Your task to perform on an android device: set the stopwatch Image 0: 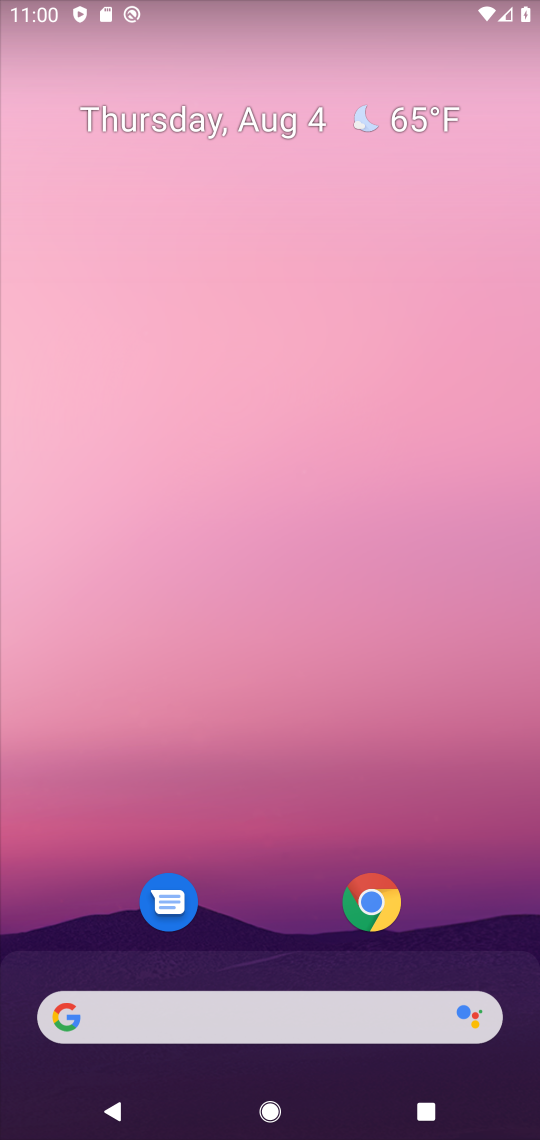
Step 0: drag from (331, 1023) to (402, 375)
Your task to perform on an android device: set the stopwatch Image 1: 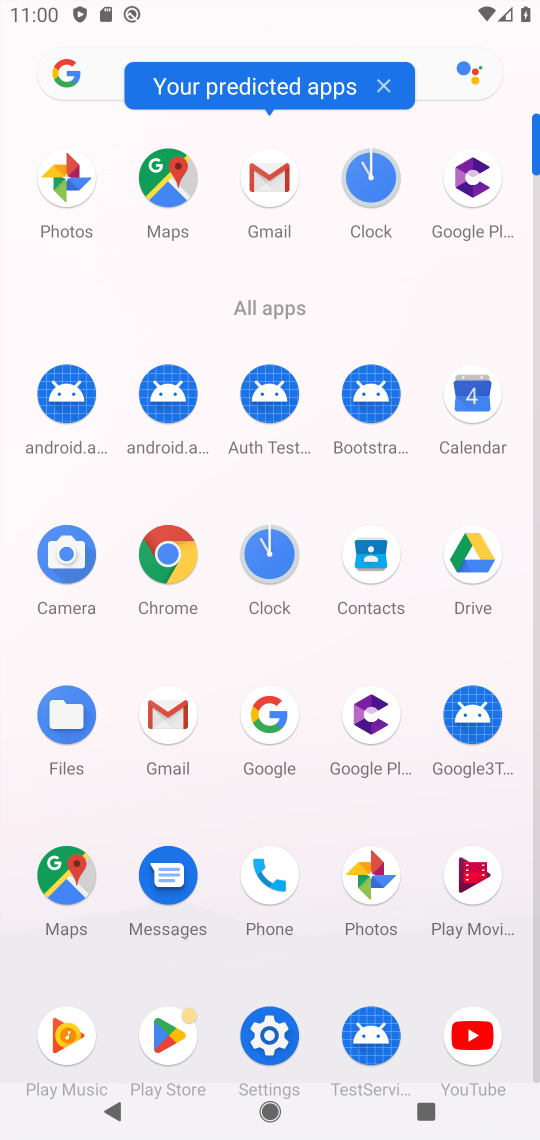
Step 1: click (265, 570)
Your task to perform on an android device: set the stopwatch Image 2: 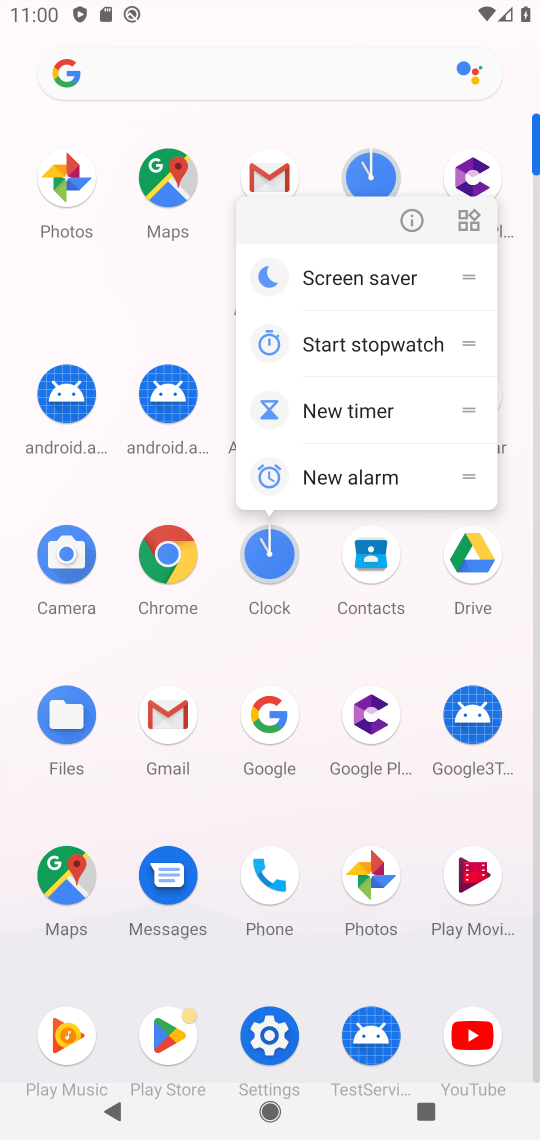
Step 2: click (265, 579)
Your task to perform on an android device: set the stopwatch Image 3: 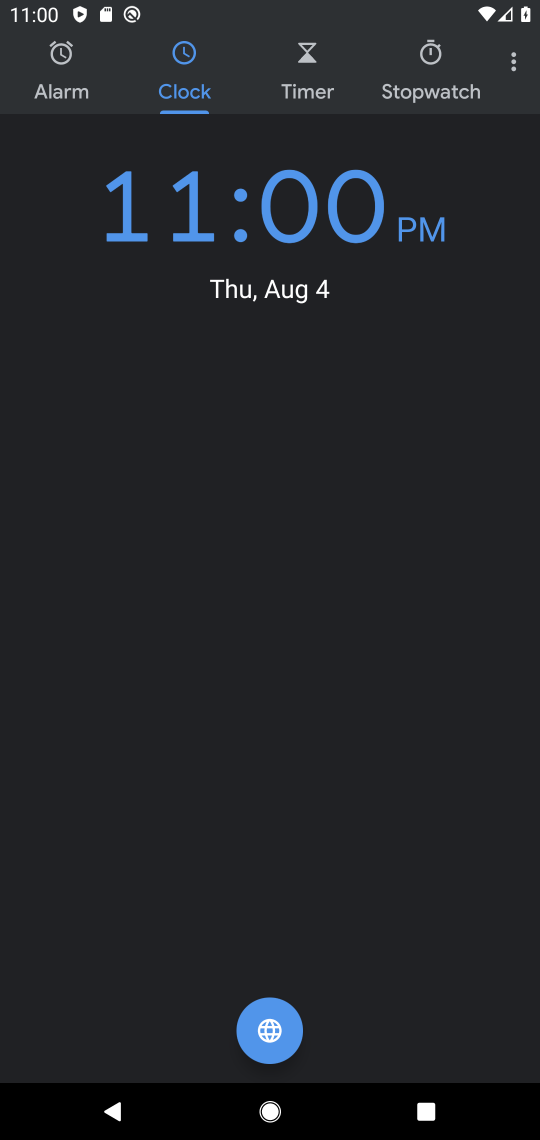
Step 3: click (402, 90)
Your task to perform on an android device: set the stopwatch Image 4: 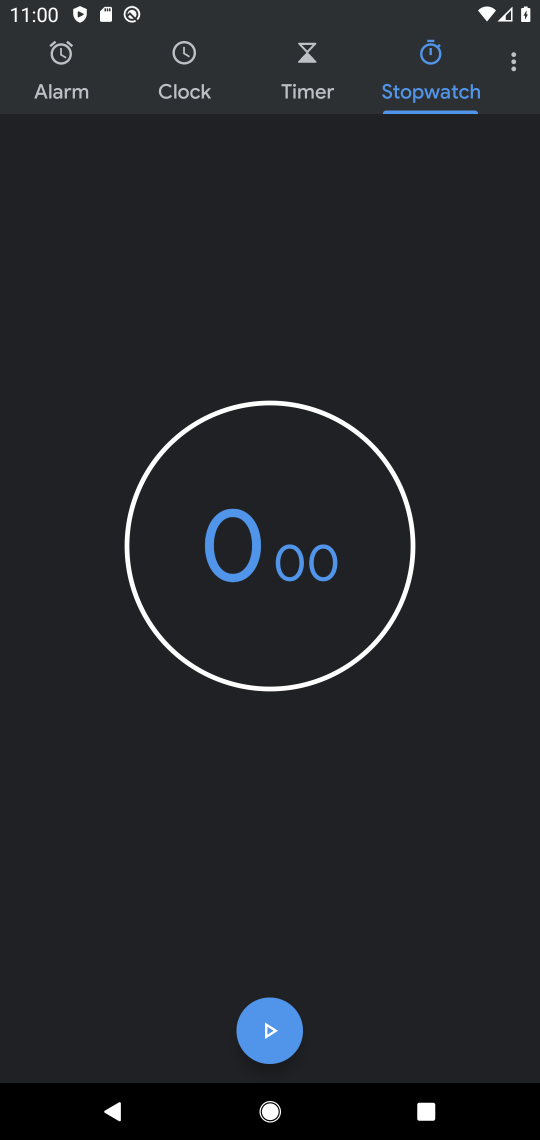
Step 4: click (259, 1026)
Your task to perform on an android device: set the stopwatch Image 5: 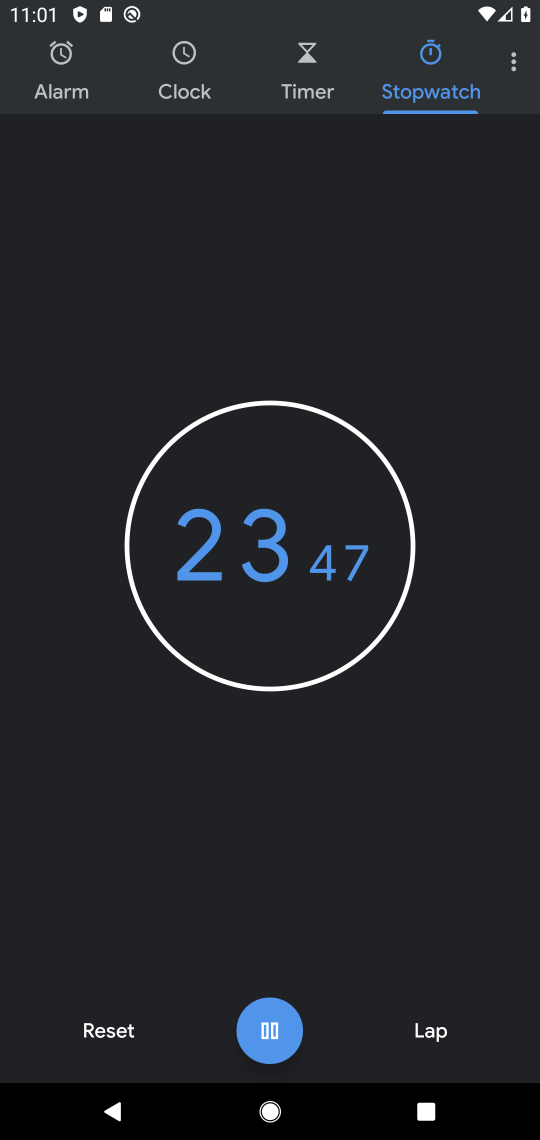
Step 5: click (286, 1041)
Your task to perform on an android device: set the stopwatch Image 6: 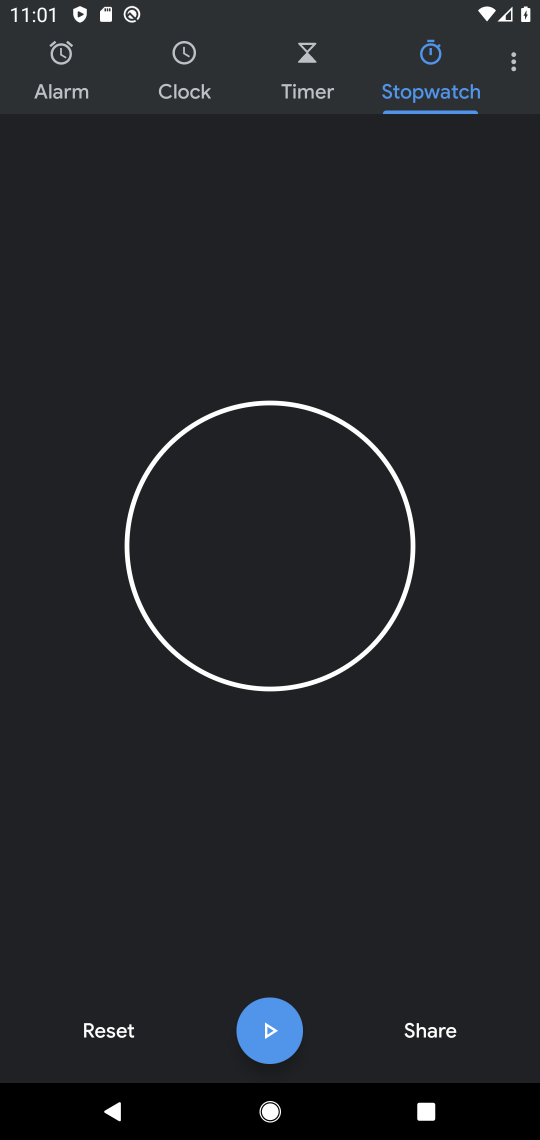
Step 6: task complete